Your task to perform on an android device: add a label to a message in the gmail app Image 0: 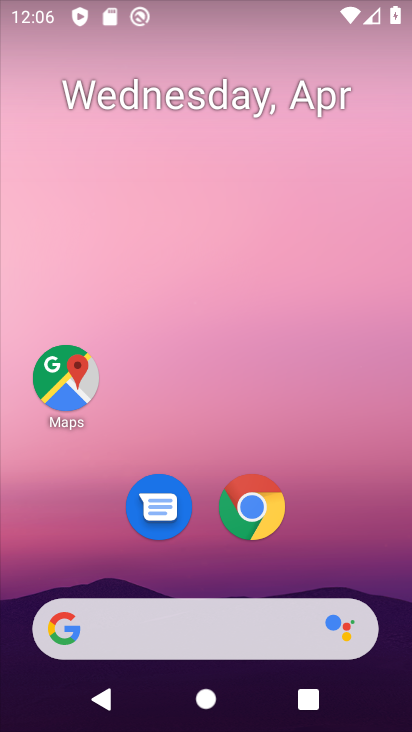
Step 0: drag from (209, 544) to (209, 176)
Your task to perform on an android device: add a label to a message in the gmail app Image 1: 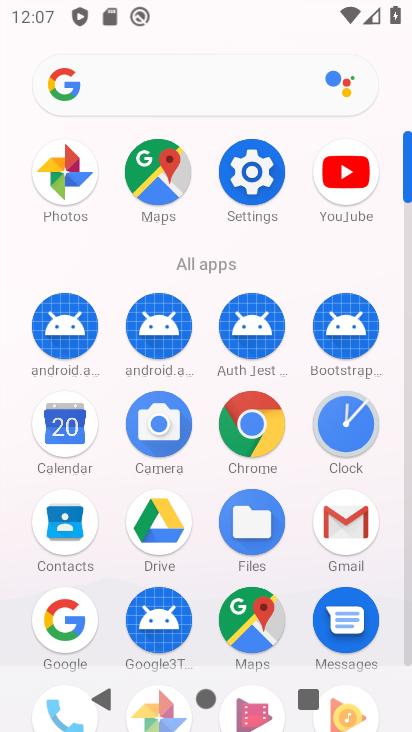
Step 1: click (341, 514)
Your task to perform on an android device: add a label to a message in the gmail app Image 2: 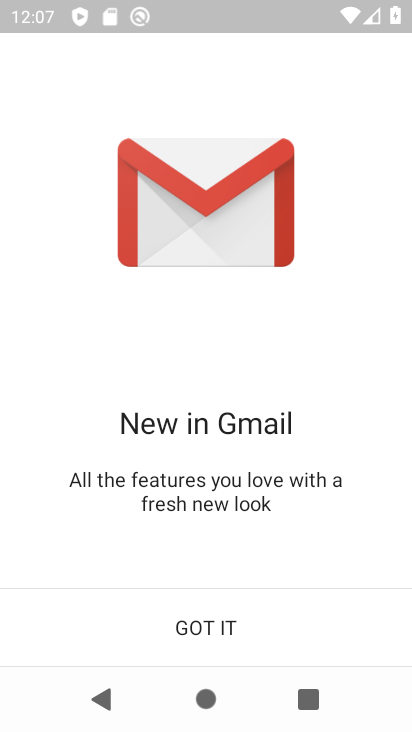
Step 2: click (241, 609)
Your task to perform on an android device: add a label to a message in the gmail app Image 3: 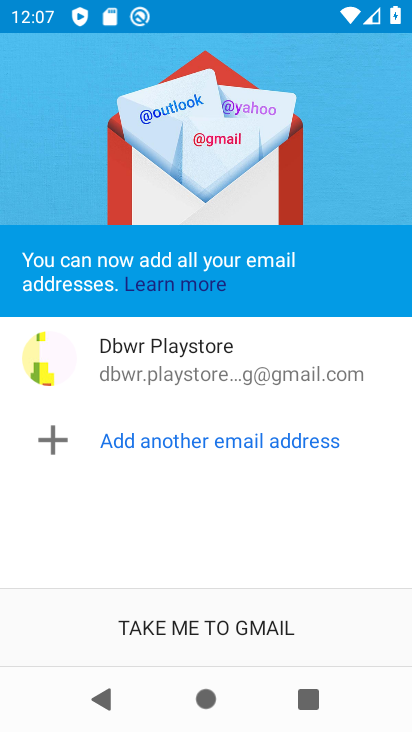
Step 3: click (241, 609)
Your task to perform on an android device: add a label to a message in the gmail app Image 4: 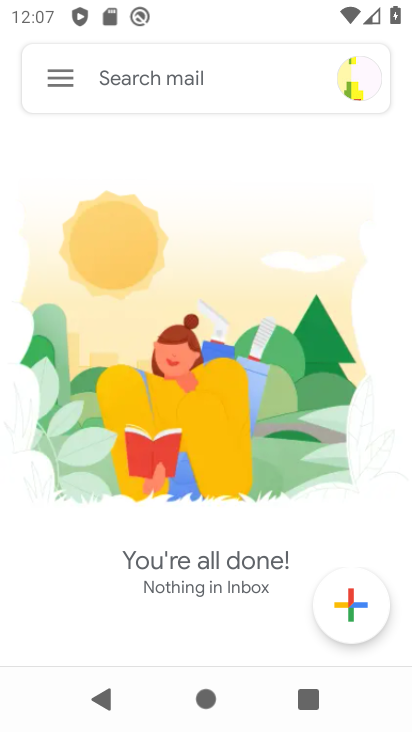
Step 4: click (58, 76)
Your task to perform on an android device: add a label to a message in the gmail app Image 5: 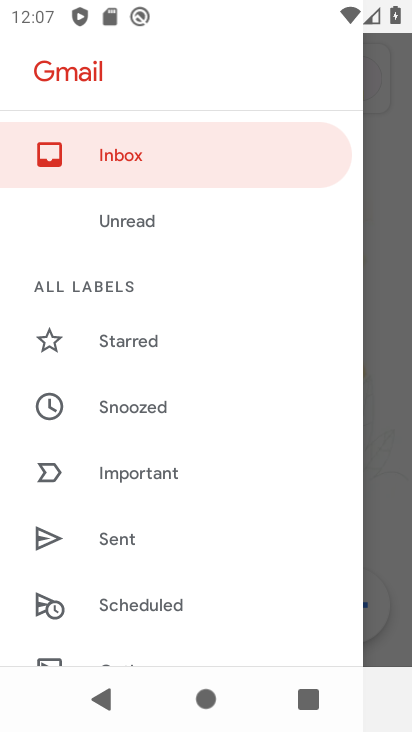
Step 5: drag from (183, 557) to (166, 236)
Your task to perform on an android device: add a label to a message in the gmail app Image 6: 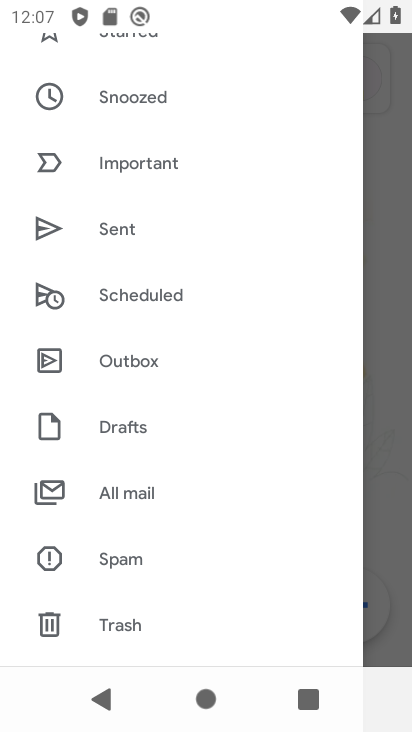
Step 6: drag from (188, 304) to (188, 463)
Your task to perform on an android device: add a label to a message in the gmail app Image 7: 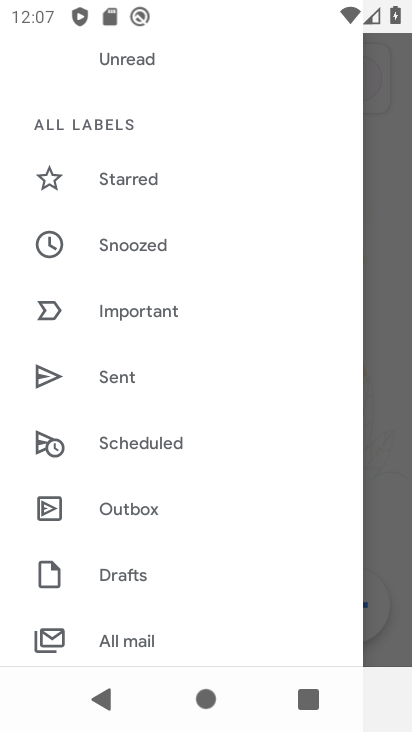
Step 7: click (135, 628)
Your task to perform on an android device: add a label to a message in the gmail app Image 8: 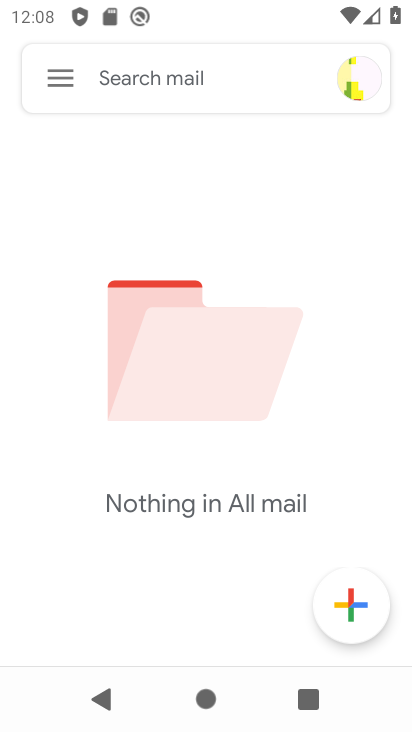
Step 8: task complete